Your task to perform on an android device: Go to battery settings Image 0: 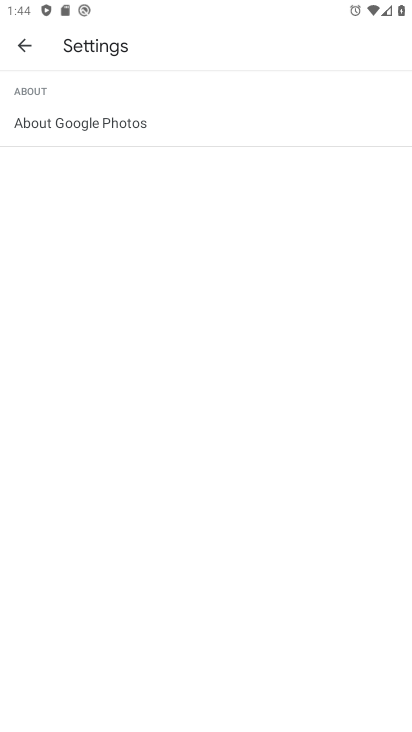
Step 0: press home button
Your task to perform on an android device: Go to battery settings Image 1: 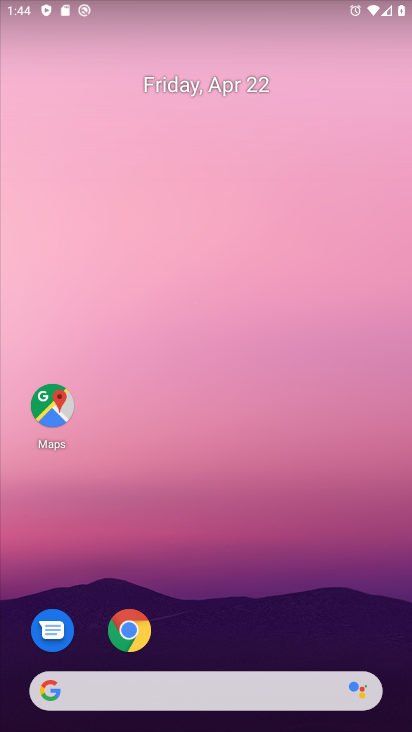
Step 1: drag from (302, 499) to (299, 79)
Your task to perform on an android device: Go to battery settings Image 2: 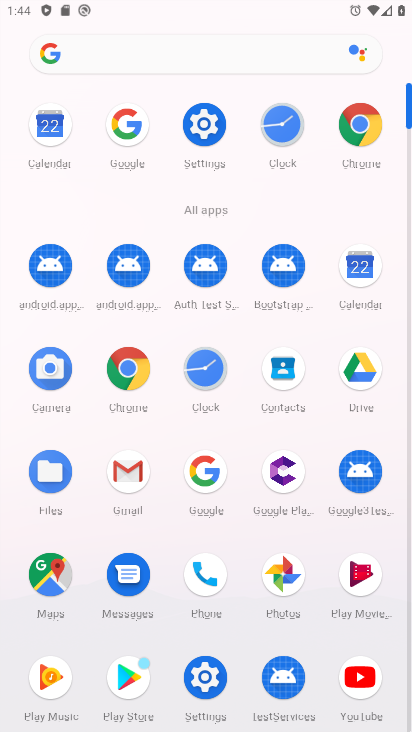
Step 2: click (218, 134)
Your task to perform on an android device: Go to battery settings Image 3: 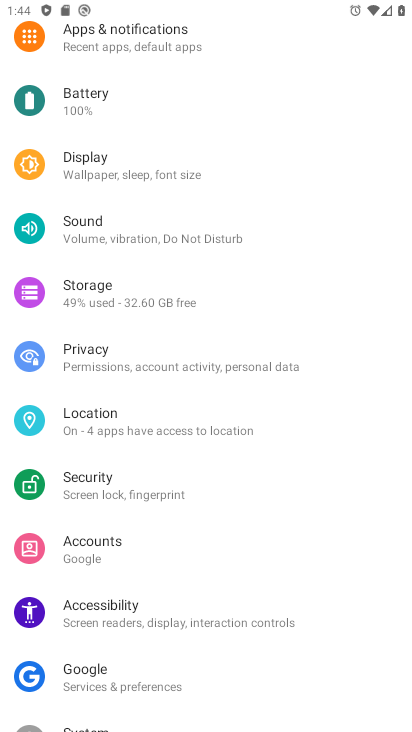
Step 3: click (98, 110)
Your task to perform on an android device: Go to battery settings Image 4: 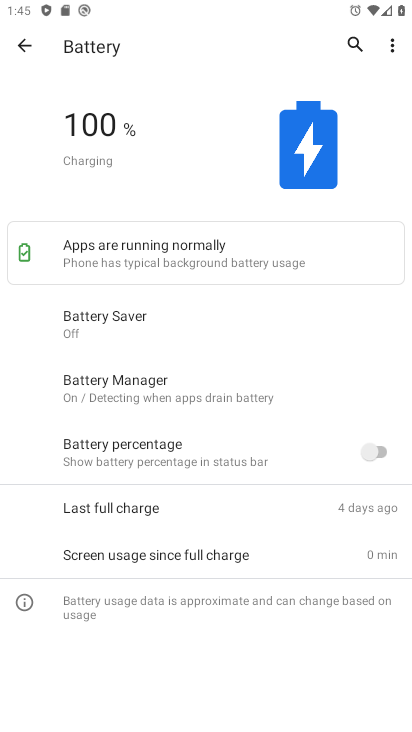
Step 4: task complete